Your task to perform on an android device: change the upload size in google photos Image 0: 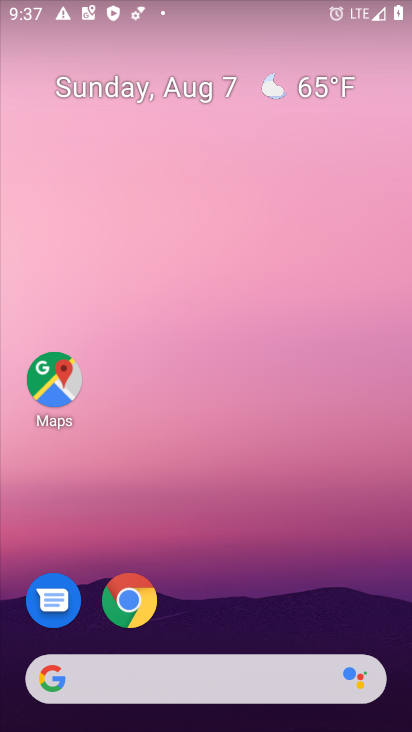
Step 0: drag from (174, 583) to (178, 3)
Your task to perform on an android device: change the upload size in google photos Image 1: 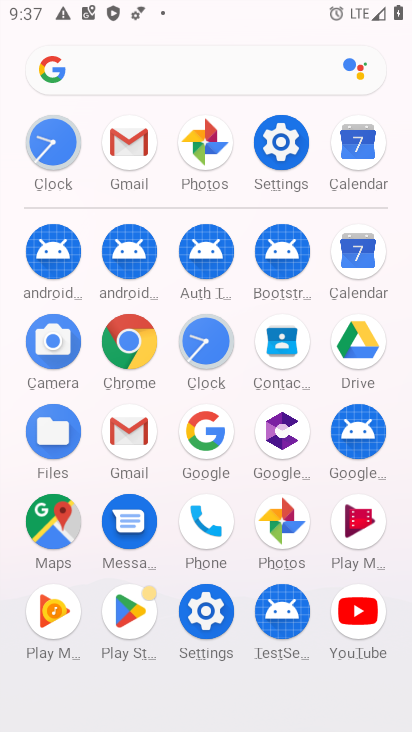
Step 1: click (279, 538)
Your task to perform on an android device: change the upload size in google photos Image 2: 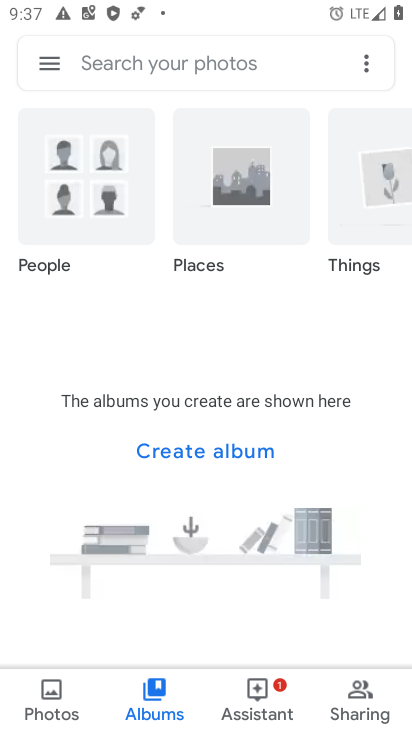
Step 2: click (44, 65)
Your task to perform on an android device: change the upload size in google photos Image 3: 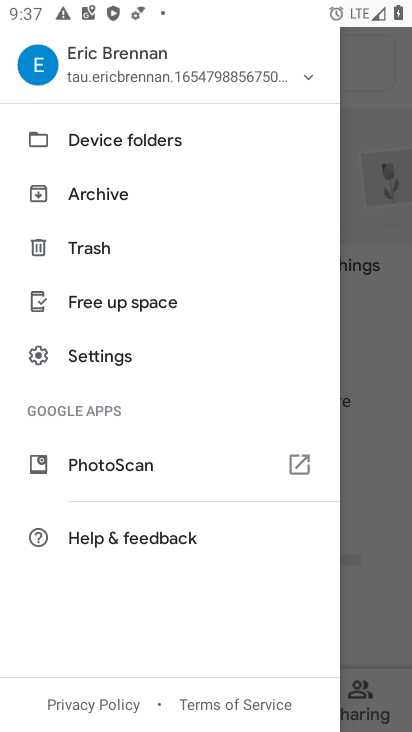
Step 3: click (117, 352)
Your task to perform on an android device: change the upload size in google photos Image 4: 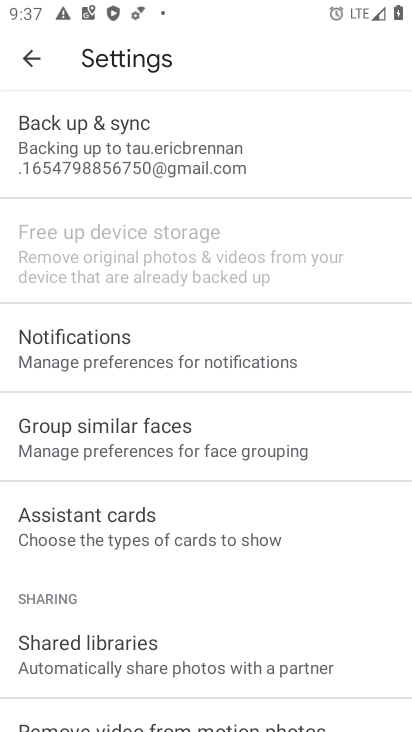
Step 4: click (149, 163)
Your task to perform on an android device: change the upload size in google photos Image 5: 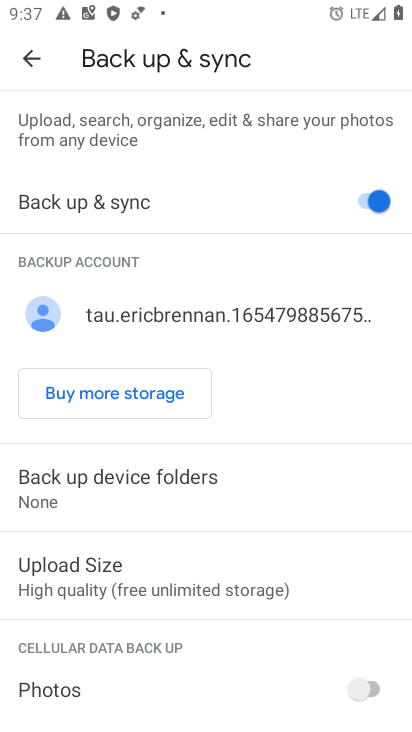
Step 5: click (89, 577)
Your task to perform on an android device: change the upload size in google photos Image 6: 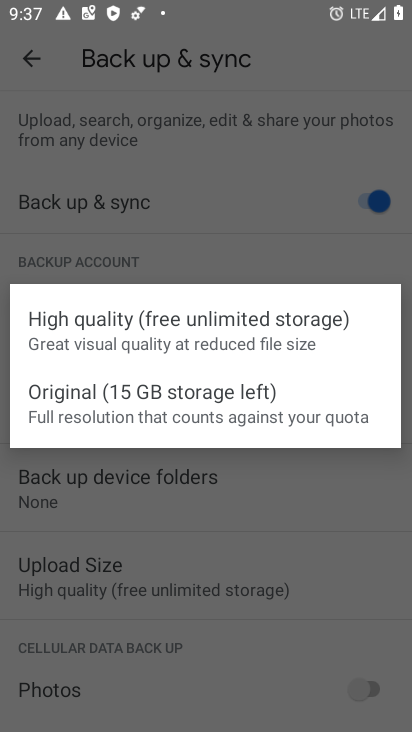
Step 6: click (106, 417)
Your task to perform on an android device: change the upload size in google photos Image 7: 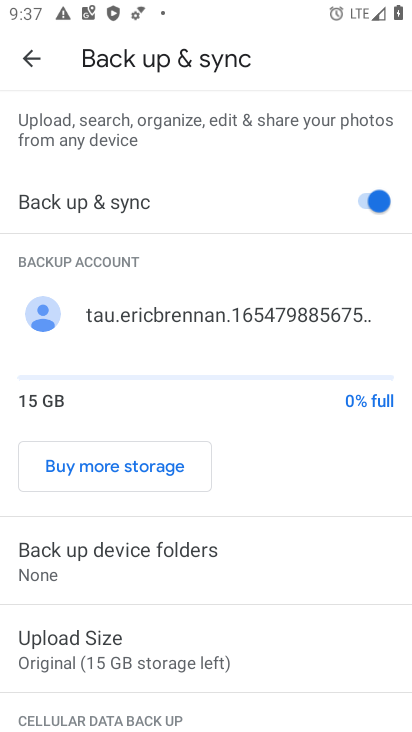
Step 7: task complete